Your task to perform on an android device: change text size in settings app Image 0: 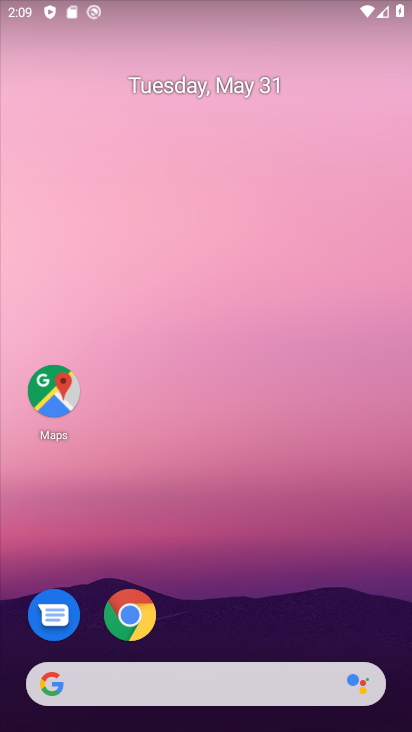
Step 0: drag from (212, 674) to (182, 31)
Your task to perform on an android device: change text size in settings app Image 1: 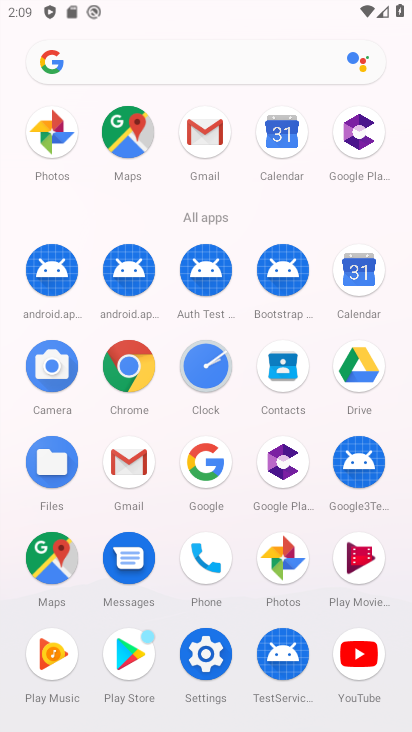
Step 1: click (201, 659)
Your task to perform on an android device: change text size in settings app Image 2: 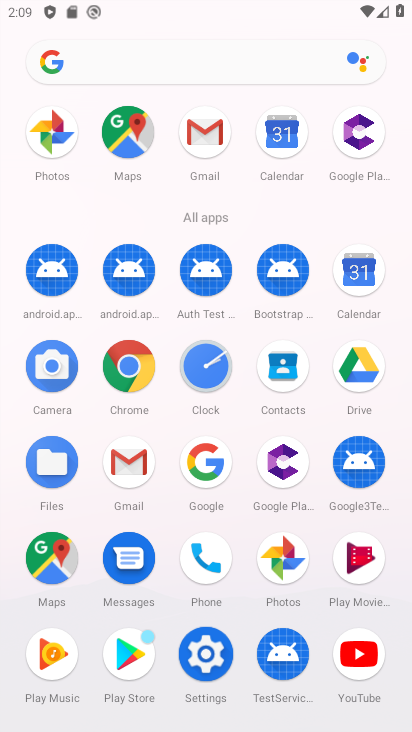
Step 2: click (203, 658)
Your task to perform on an android device: change text size in settings app Image 3: 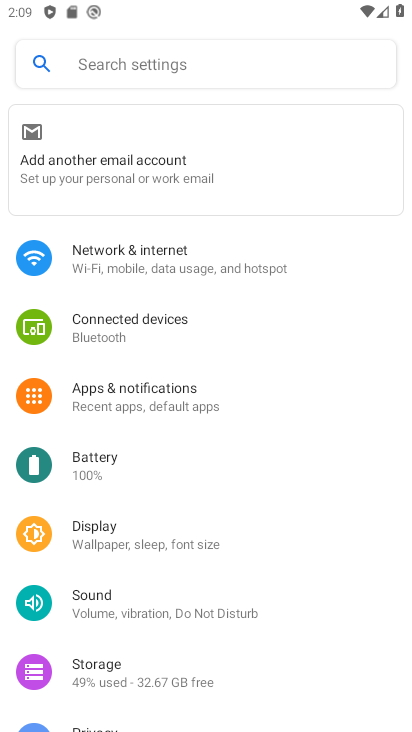
Step 3: click (102, 532)
Your task to perform on an android device: change text size in settings app Image 4: 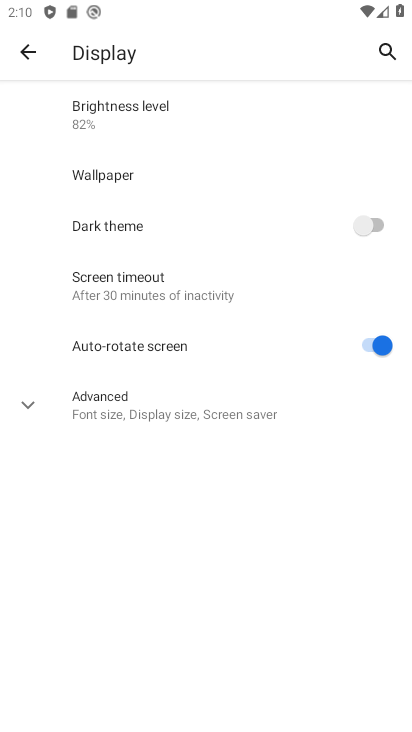
Step 4: click (164, 413)
Your task to perform on an android device: change text size in settings app Image 5: 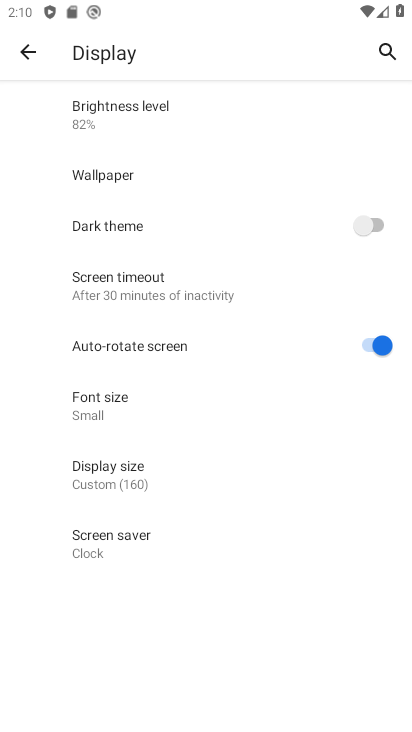
Step 5: click (86, 405)
Your task to perform on an android device: change text size in settings app Image 6: 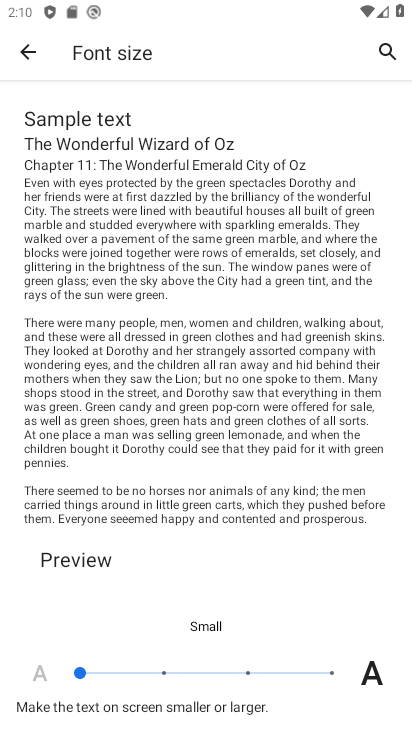
Step 6: click (165, 677)
Your task to perform on an android device: change text size in settings app Image 7: 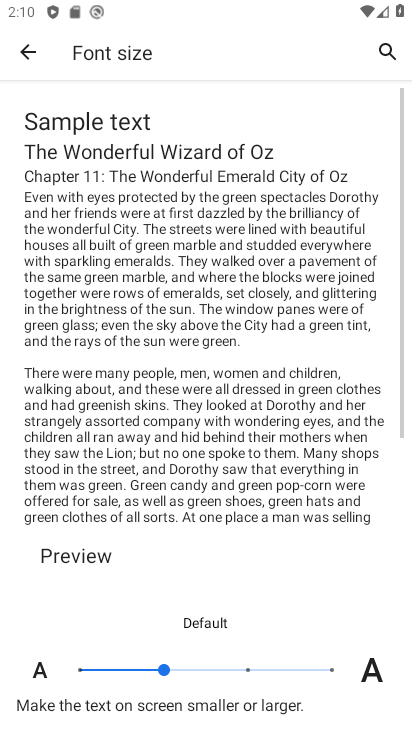
Step 7: task complete